Your task to perform on an android device: find snoozed emails in the gmail app Image 0: 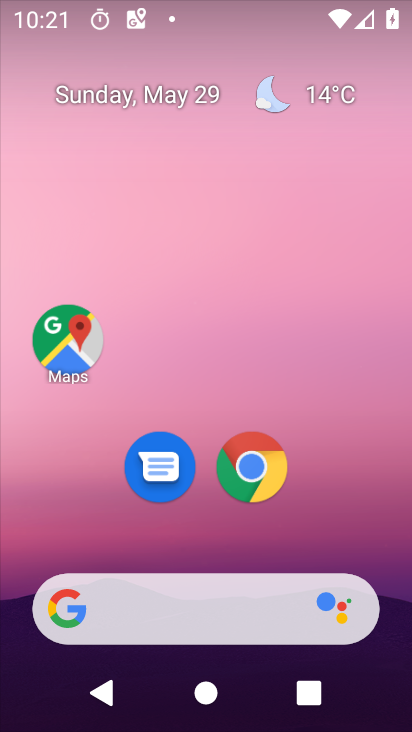
Step 0: drag from (207, 543) to (197, 185)
Your task to perform on an android device: find snoozed emails in the gmail app Image 1: 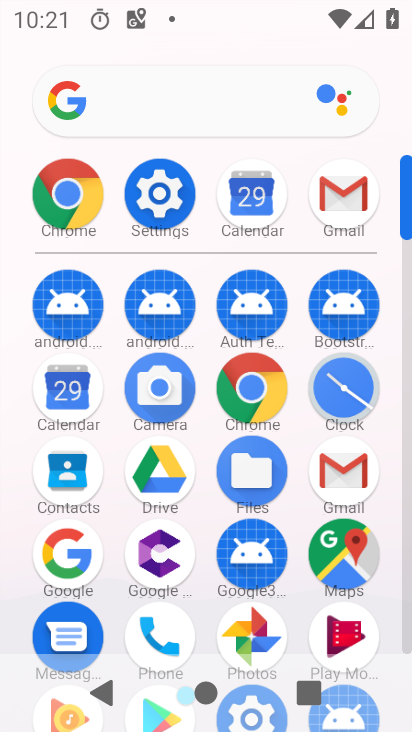
Step 1: click (322, 210)
Your task to perform on an android device: find snoozed emails in the gmail app Image 2: 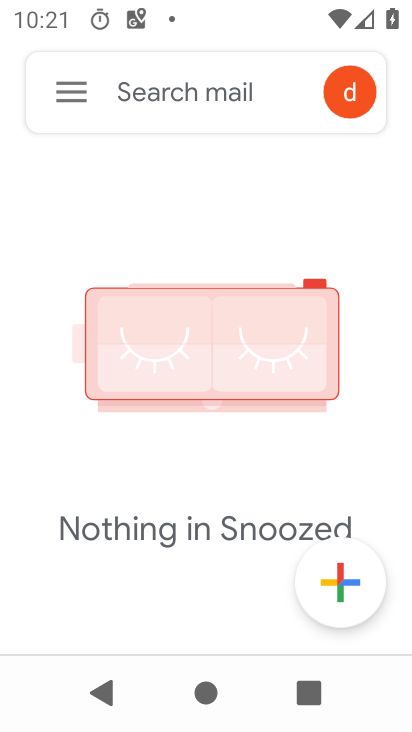
Step 2: click (79, 80)
Your task to perform on an android device: find snoozed emails in the gmail app Image 3: 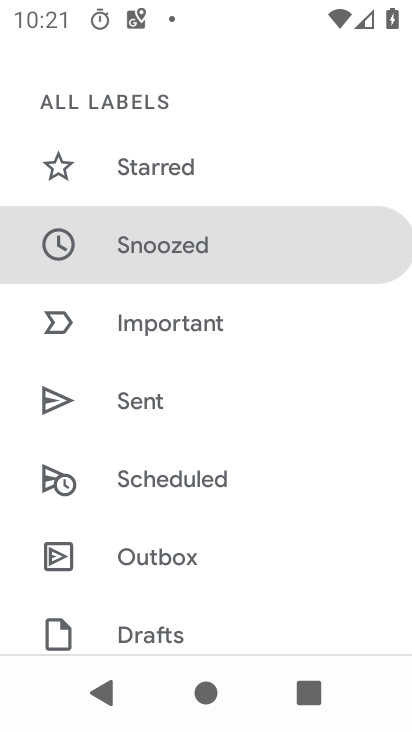
Step 3: click (178, 236)
Your task to perform on an android device: find snoozed emails in the gmail app Image 4: 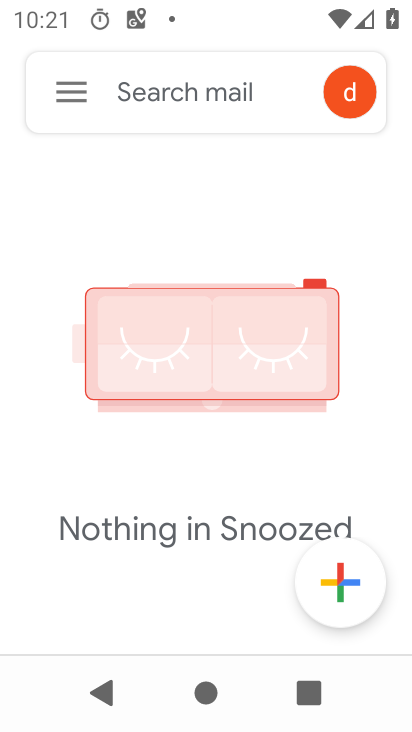
Step 4: task complete